Your task to perform on an android device: Open Yahoo.com Image 0: 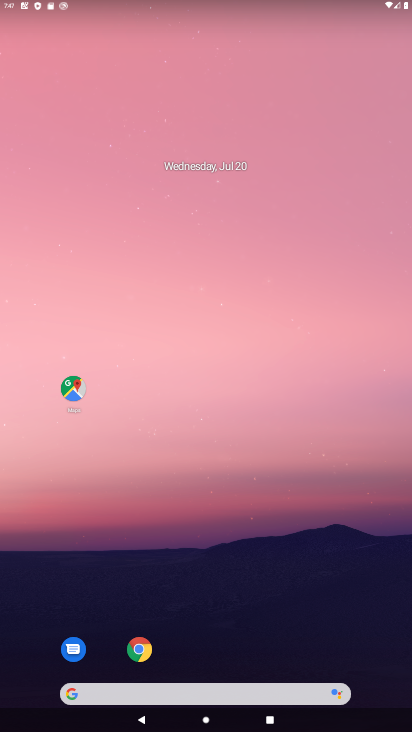
Step 0: drag from (272, 648) to (259, 220)
Your task to perform on an android device: Open Yahoo.com Image 1: 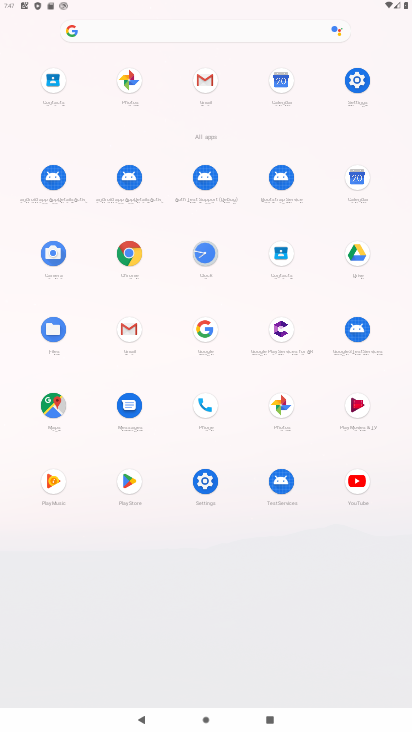
Step 1: click (143, 25)
Your task to perform on an android device: Open Yahoo.com Image 2: 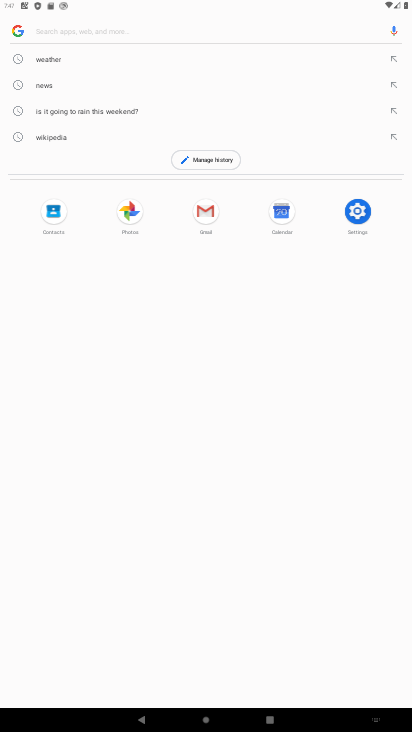
Step 2: type "yahoo.com"
Your task to perform on an android device: Open Yahoo.com Image 3: 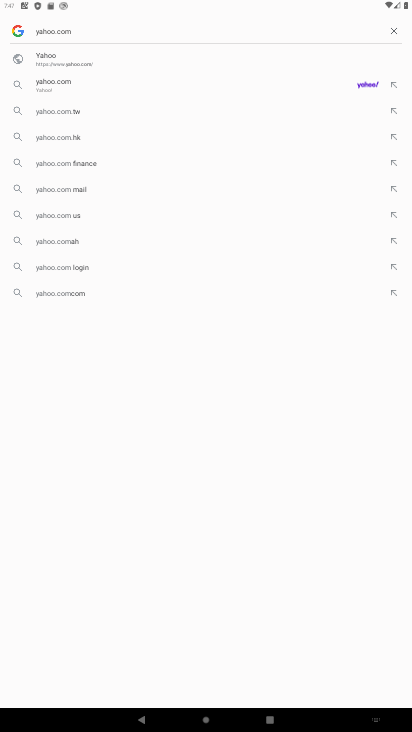
Step 3: click (169, 45)
Your task to perform on an android device: Open Yahoo.com Image 4: 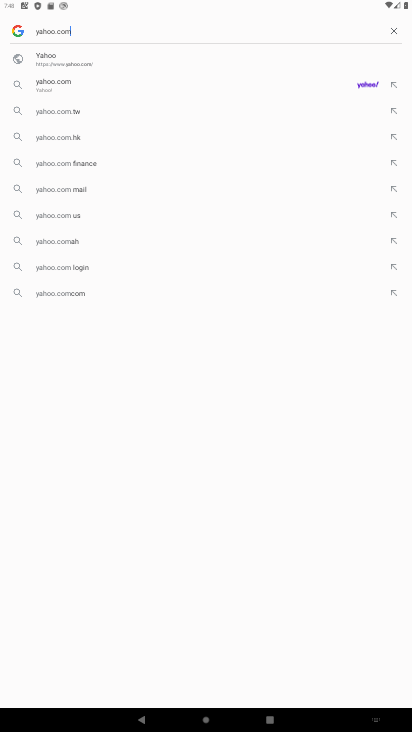
Step 4: click (136, 68)
Your task to perform on an android device: Open Yahoo.com Image 5: 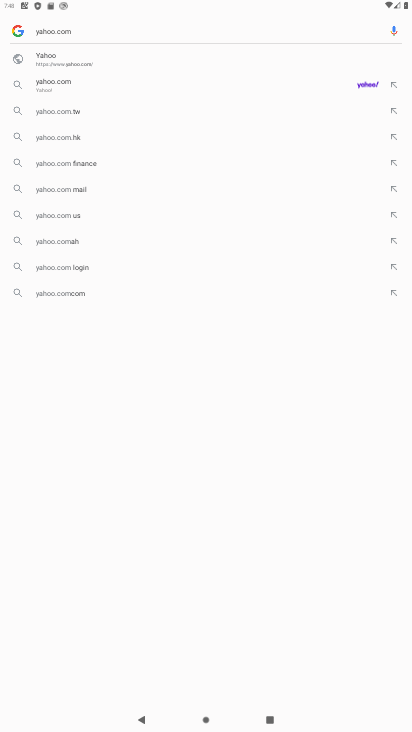
Step 5: task complete